Your task to perform on an android device: visit the assistant section in the google photos Image 0: 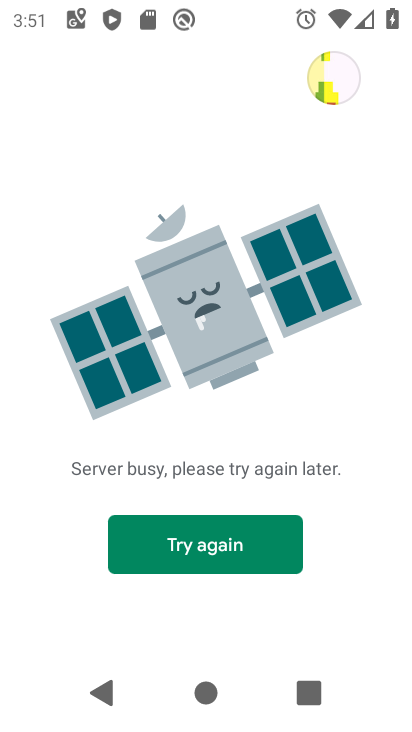
Step 0: press home button
Your task to perform on an android device: visit the assistant section in the google photos Image 1: 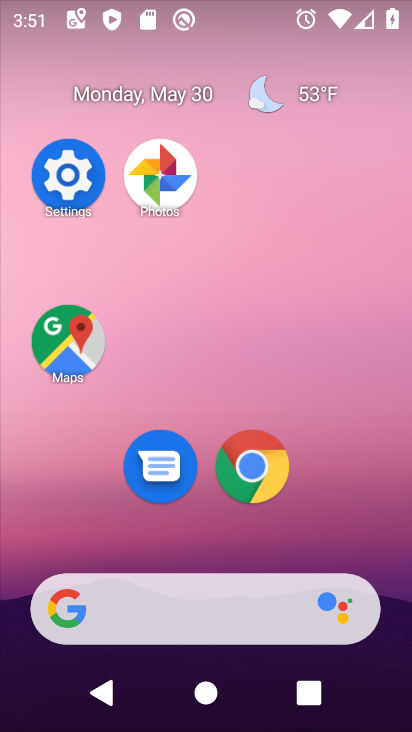
Step 1: click (179, 182)
Your task to perform on an android device: visit the assistant section in the google photos Image 2: 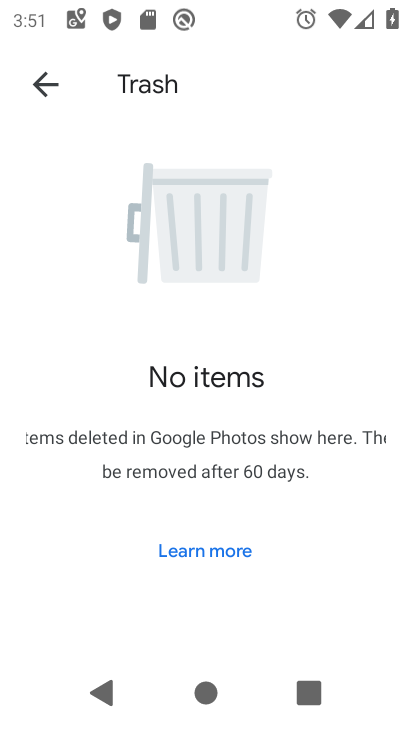
Step 2: click (56, 64)
Your task to perform on an android device: visit the assistant section in the google photos Image 3: 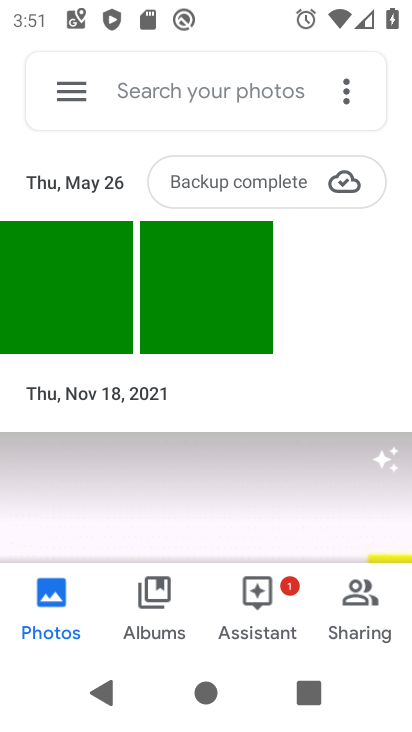
Step 3: click (253, 603)
Your task to perform on an android device: visit the assistant section in the google photos Image 4: 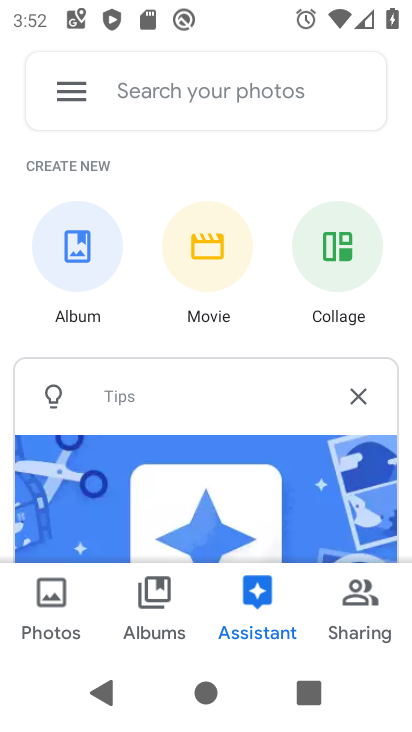
Step 4: task complete